Your task to perform on an android device: find photos in the google photos app Image 0: 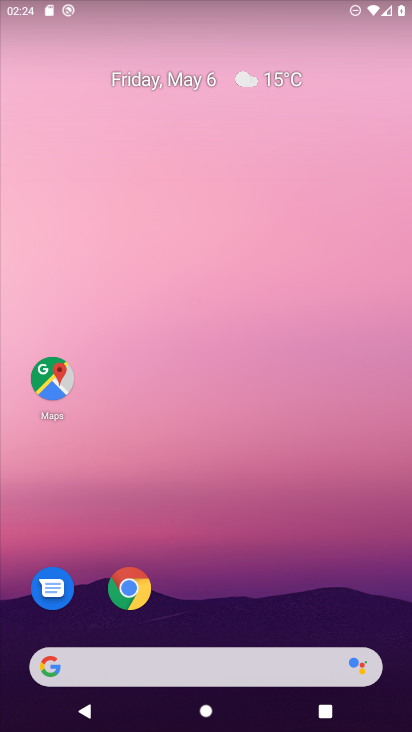
Step 0: drag from (251, 623) to (179, 98)
Your task to perform on an android device: find photos in the google photos app Image 1: 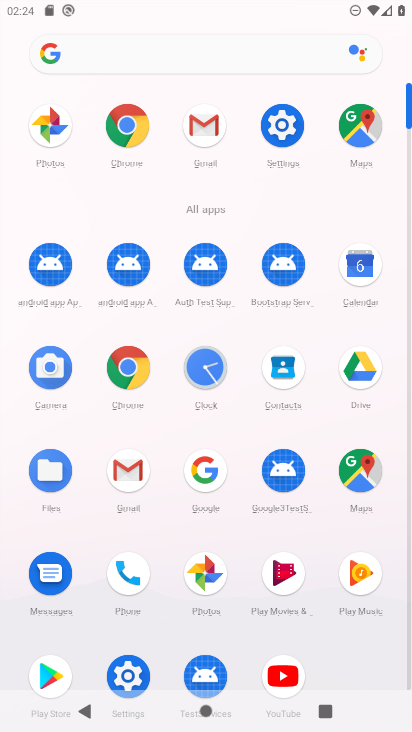
Step 1: click (191, 563)
Your task to perform on an android device: find photos in the google photos app Image 2: 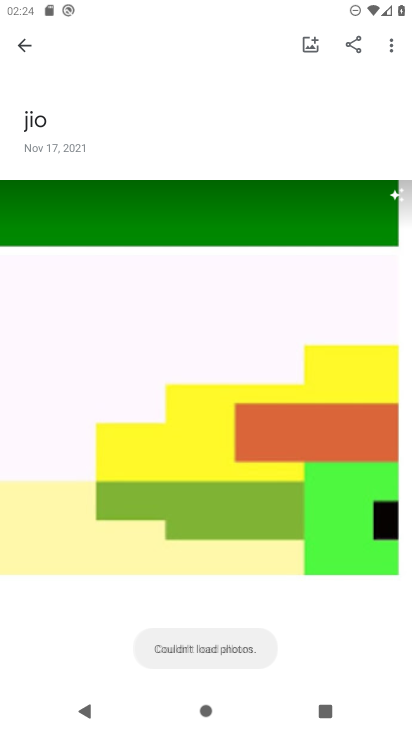
Step 2: press back button
Your task to perform on an android device: find photos in the google photos app Image 3: 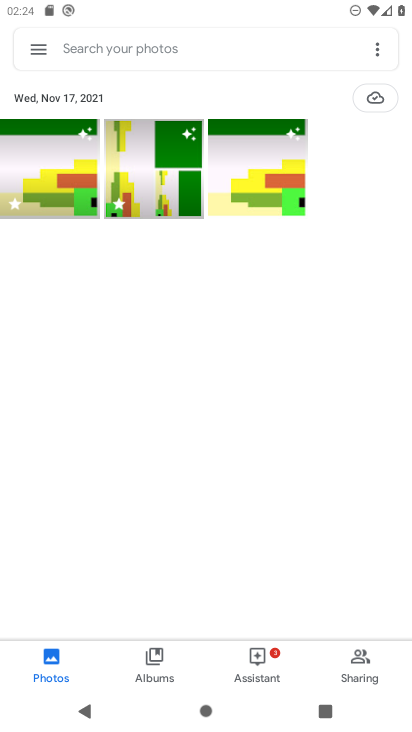
Step 3: click (56, 666)
Your task to perform on an android device: find photos in the google photos app Image 4: 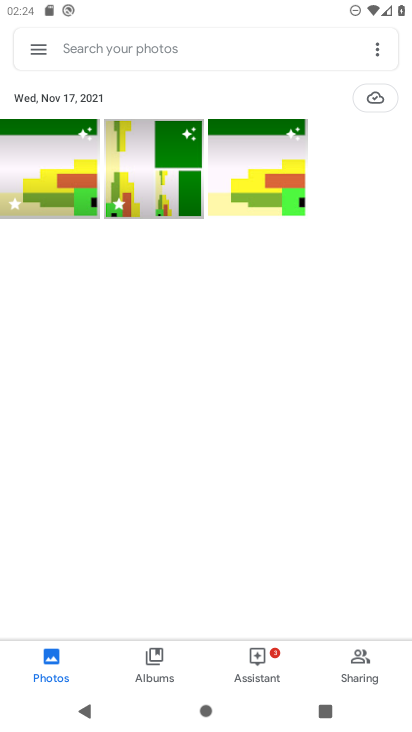
Step 4: task complete